Your task to perform on an android device: Do I have any events tomorrow? Image 0: 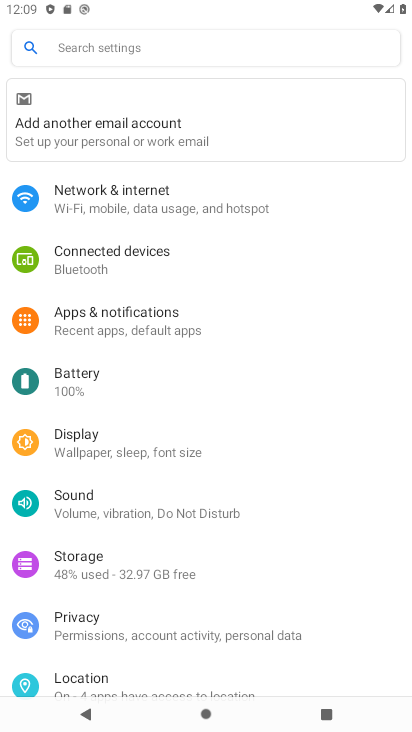
Step 0: press home button
Your task to perform on an android device: Do I have any events tomorrow? Image 1: 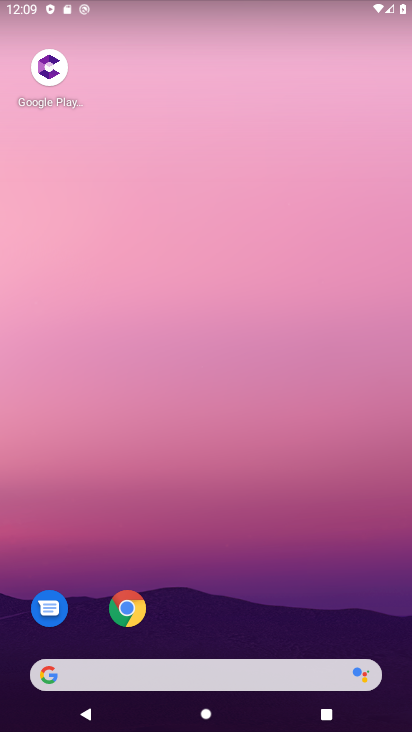
Step 1: drag from (259, 450) to (280, 118)
Your task to perform on an android device: Do I have any events tomorrow? Image 2: 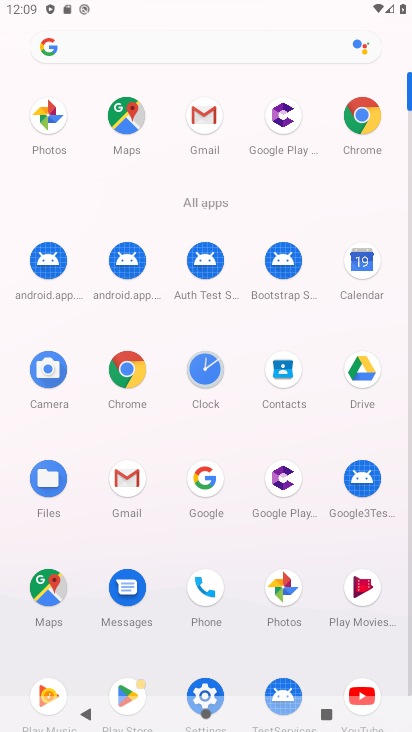
Step 2: click (364, 267)
Your task to perform on an android device: Do I have any events tomorrow? Image 3: 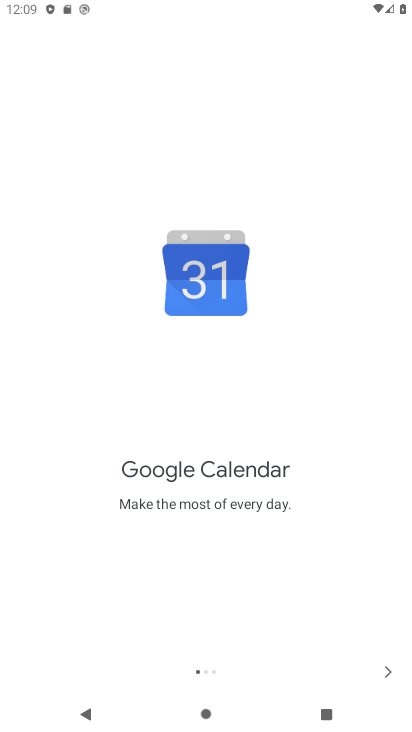
Step 3: click (387, 671)
Your task to perform on an android device: Do I have any events tomorrow? Image 4: 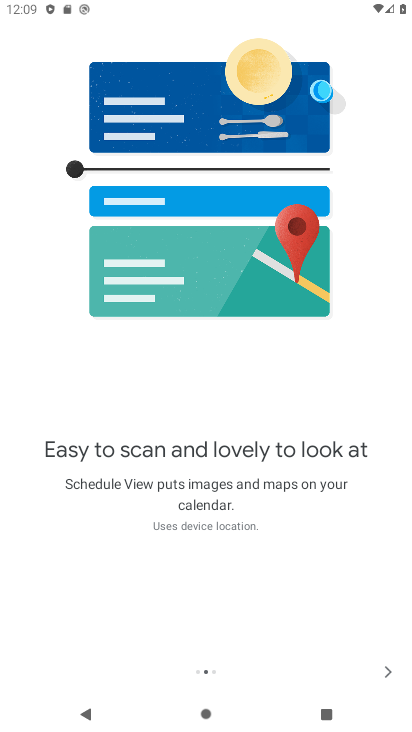
Step 4: click (387, 671)
Your task to perform on an android device: Do I have any events tomorrow? Image 5: 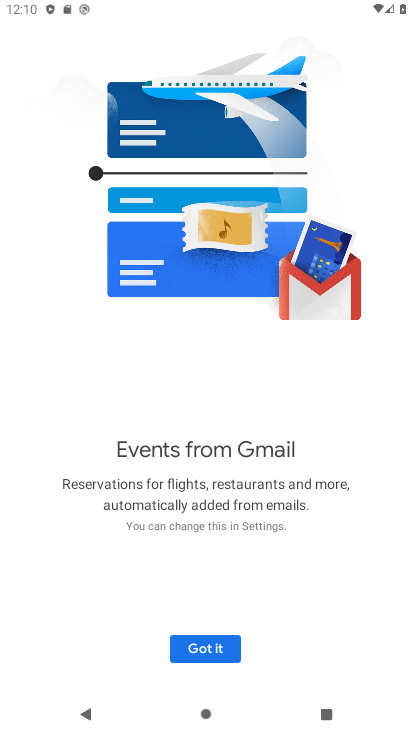
Step 5: click (212, 644)
Your task to perform on an android device: Do I have any events tomorrow? Image 6: 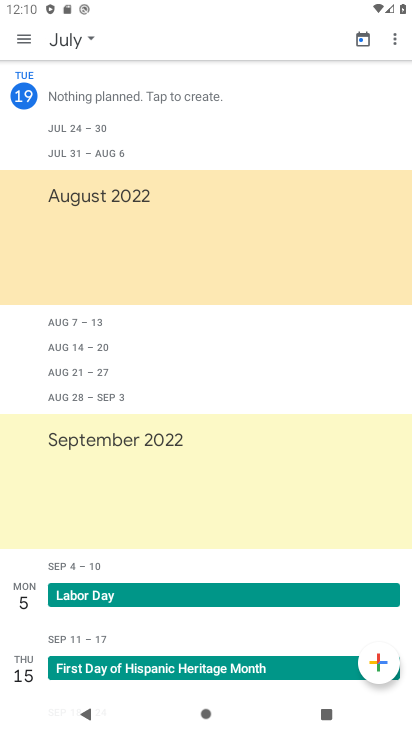
Step 6: task complete